Your task to perform on an android device: Open the phone app and click the voicemail tab. Image 0: 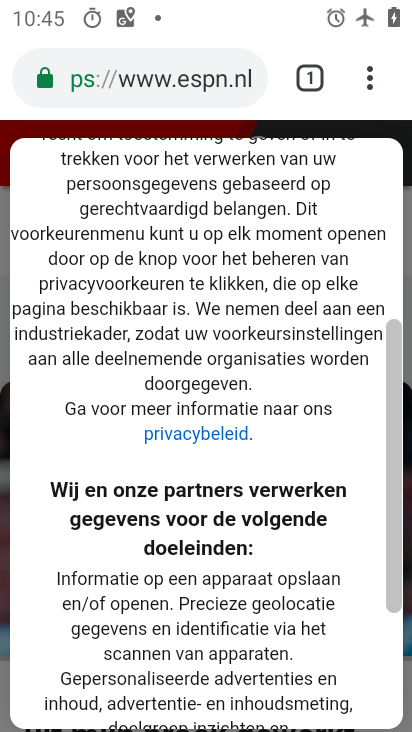
Step 0: press home button
Your task to perform on an android device: Open the phone app and click the voicemail tab. Image 1: 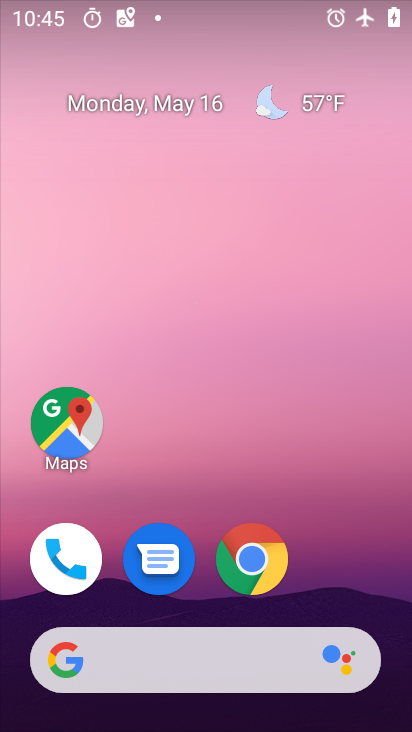
Step 1: drag from (311, 569) to (206, 93)
Your task to perform on an android device: Open the phone app and click the voicemail tab. Image 2: 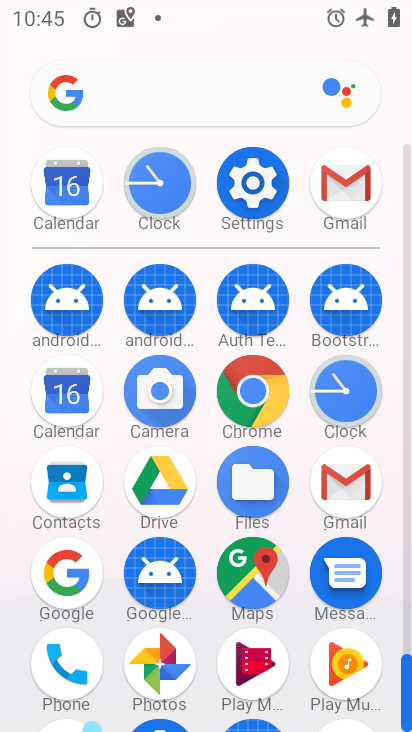
Step 2: click (61, 657)
Your task to perform on an android device: Open the phone app and click the voicemail tab. Image 3: 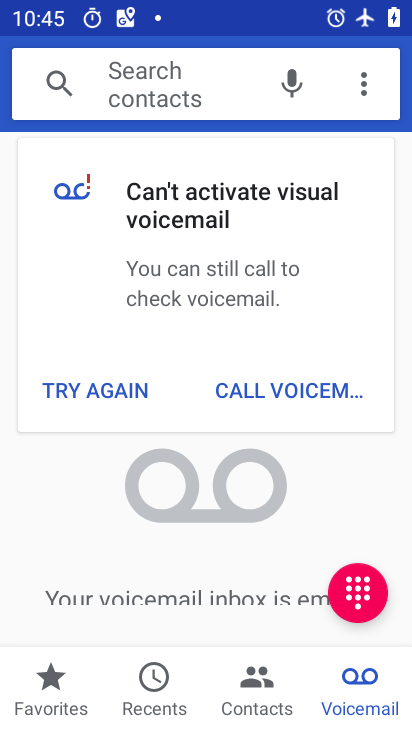
Step 3: task complete